Your task to perform on an android device: toggle notifications settings in the gmail app Image 0: 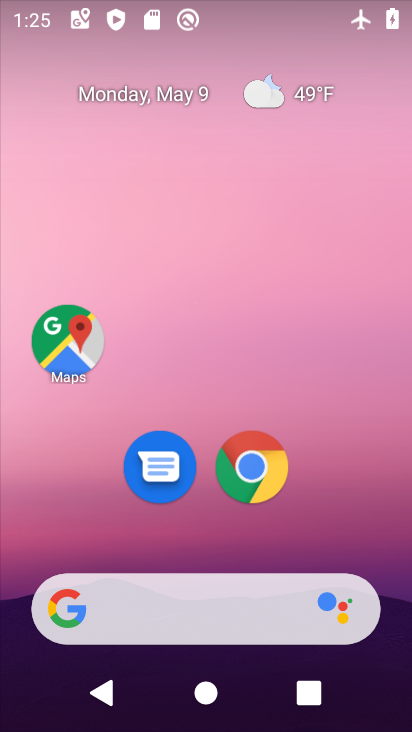
Step 0: drag from (358, 524) to (376, 114)
Your task to perform on an android device: toggle notifications settings in the gmail app Image 1: 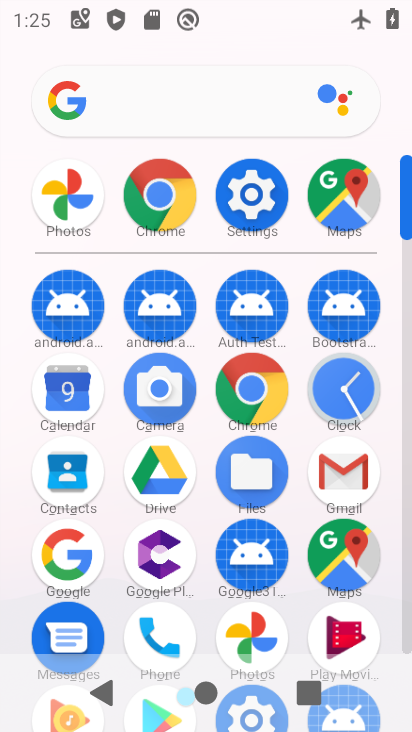
Step 1: click (328, 484)
Your task to perform on an android device: toggle notifications settings in the gmail app Image 2: 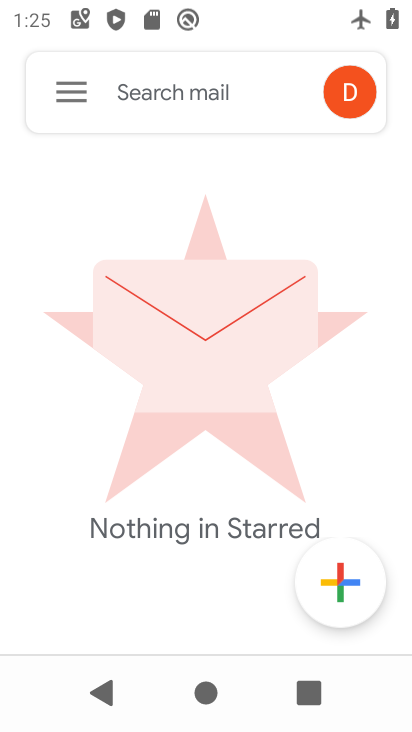
Step 2: click (158, 79)
Your task to perform on an android device: toggle notifications settings in the gmail app Image 3: 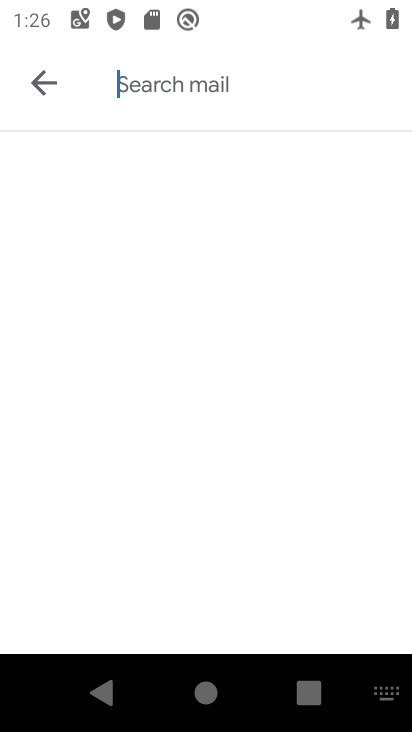
Step 3: click (48, 87)
Your task to perform on an android device: toggle notifications settings in the gmail app Image 4: 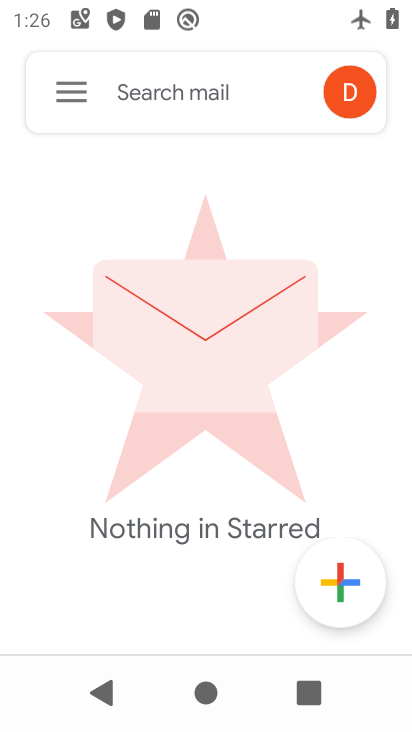
Step 4: click (53, 89)
Your task to perform on an android device: toggle notifications settings in the gmail app Image 5: 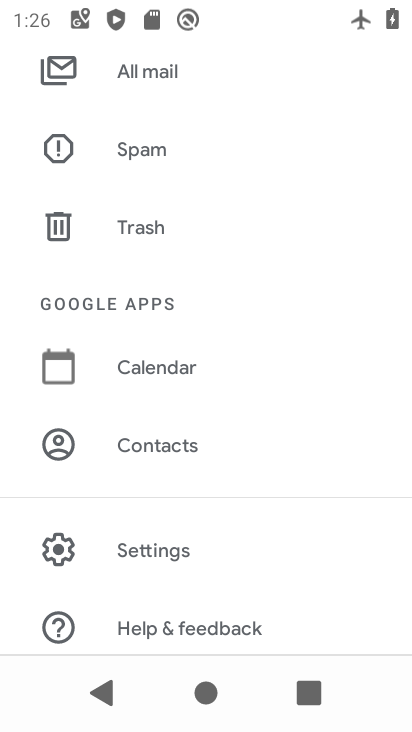
Step 5: drag from (164, 595) to (182, 259)
Your task to perform on an android device: toggle notifications settings in the gmail app Image 6: 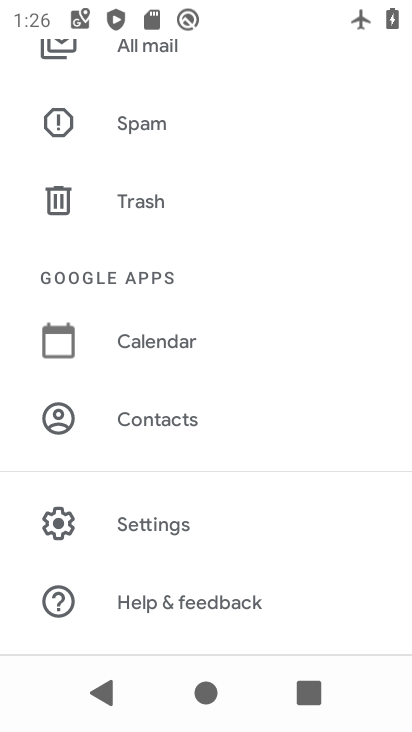
Step 6: click (156, 525)
Your task to perform on an android device: toggle notifications settings in the gmail app Image 7: 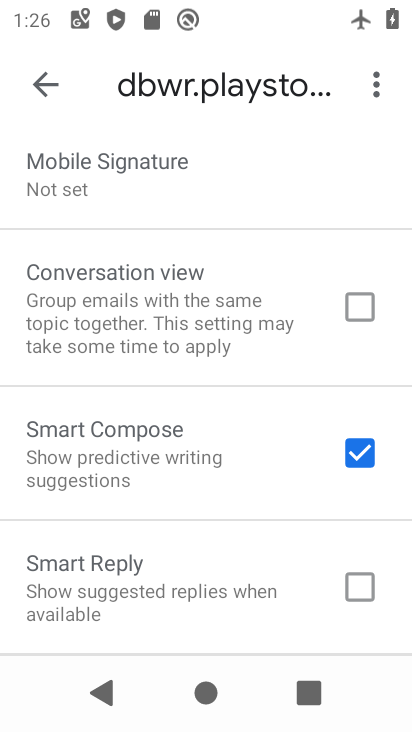
Step 7: drag from (200, 568) to (241, 247)
Your task to perform on an android device: toggle notifications settings in the gmail app Image 8: 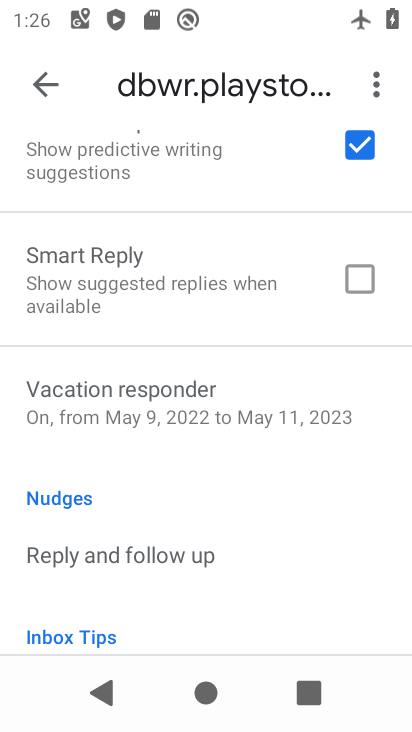
Step 8: drag from (228, 604) to (191, 198)
Your task to perform on an android device: toggle notifications settings in the gmail app Image 9: 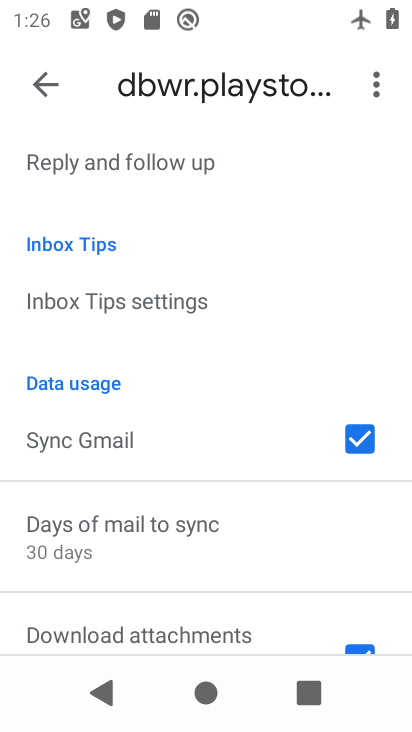
Step 9: drag from (170, 311) to (184, 207)
Your task to perform on an android device: toggle notifications settings in the gmail app Image 10: 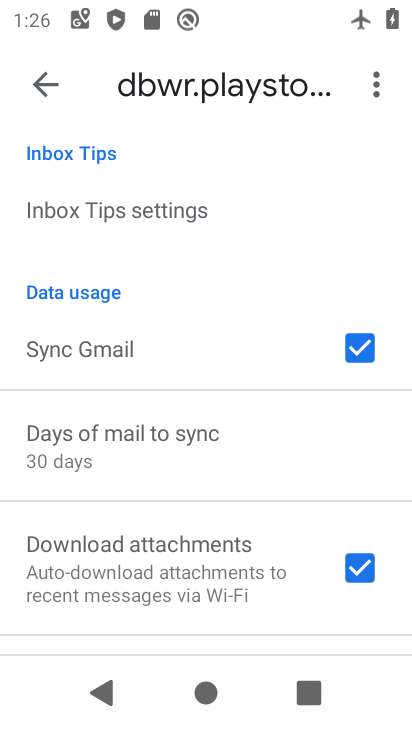
Step 10: drag from (275, 606) to (252, 260)
Your task to perform on an android device: toggle notifications settings in the gmail app Image 11: 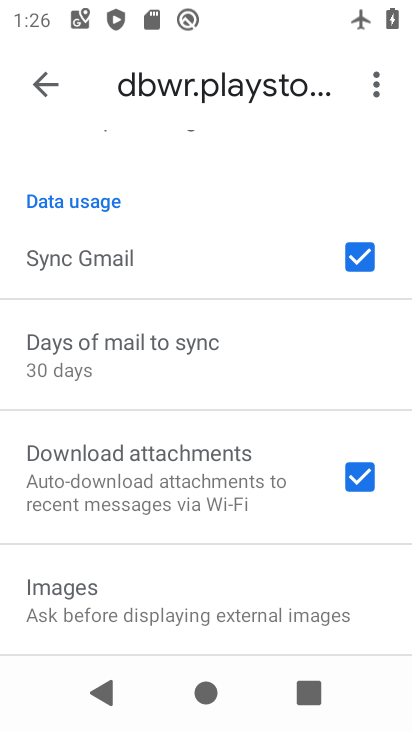
Step 11: drag from (214, 234) to (193, 603)
Your task to perform on an android device: toggle notifications settings in the gmail app Image 12: 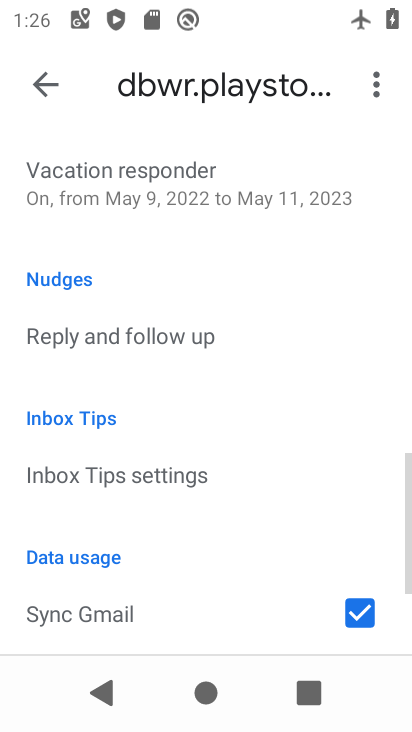
Step 12: drag from (266, 223) to (266, 630)
Your task to perform on an android device: toggle notifications settings in the gmail app Image 13: 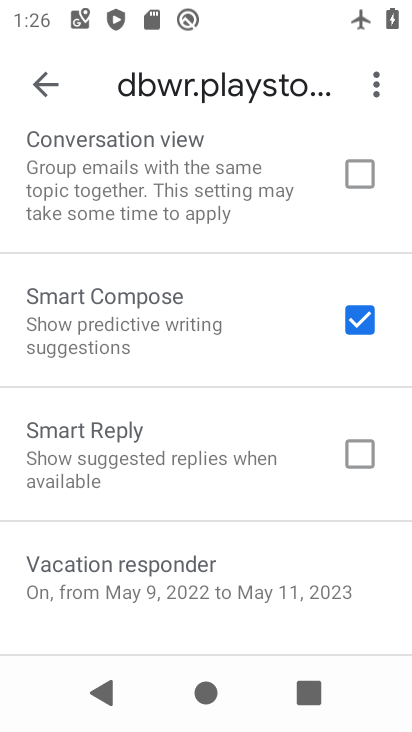
Step 13: drag from (241, 265) to (257, 635)
Your task to perform on an android device: toggle notifications settings in the gmail app Image 14: 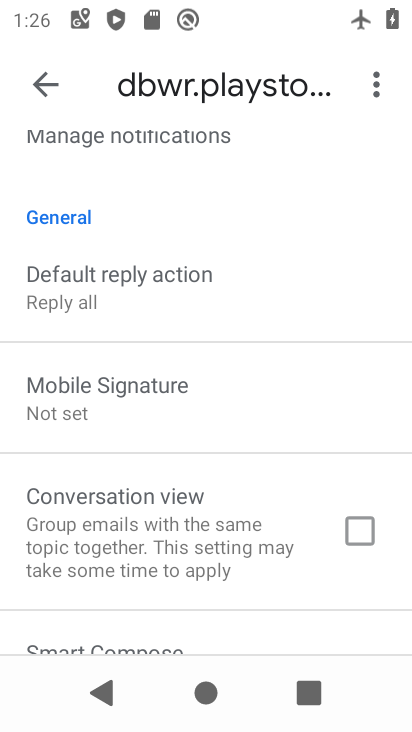
Step 14: drag from (229, 422) to (237, 623)
Your task to perform on an android device: toggle notifications settings in the gmail app Image 15: 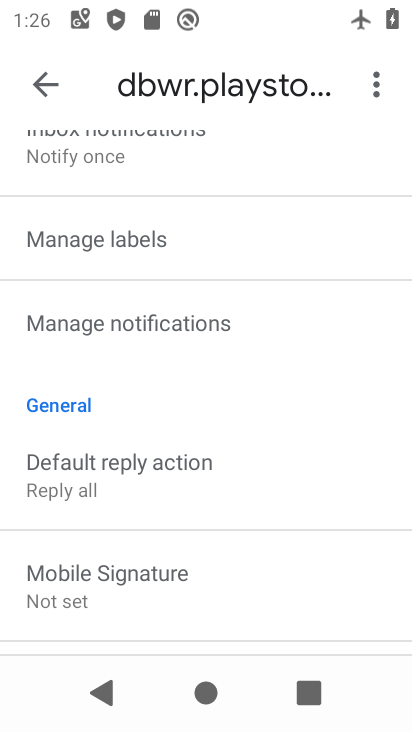
Step 15: drag from (205, 250) to (252, 641)
Your task to perform on an android device: toggle notifications settings in the gmail app Image 16: 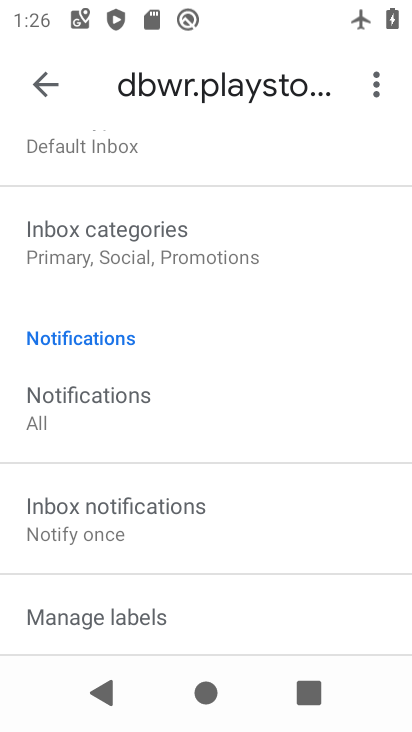
Step 16: click (123, 406)
Your task to perform on an android device: toggle notifications settings in the gmail app Image 17: 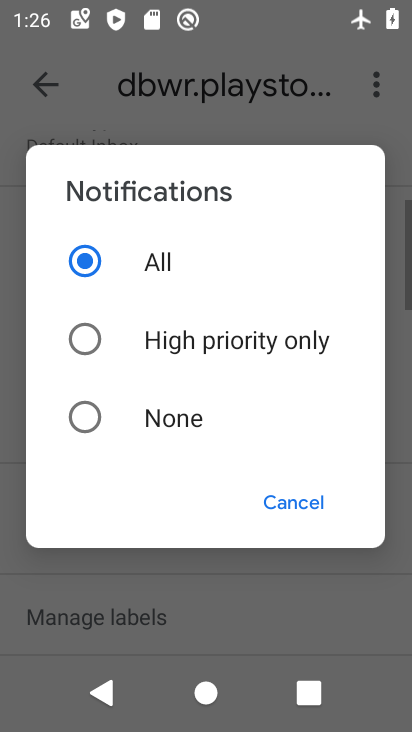
Step 17: click (157, 420)
Your task to perform on an android device: toggle notifications settings in the gmail app Image 18: 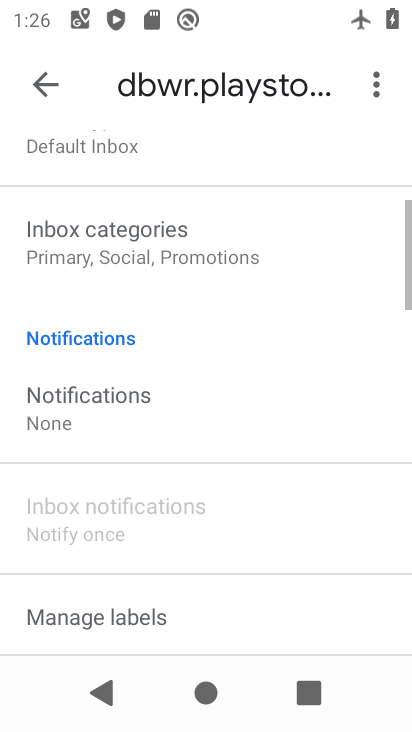
Step 18: task complete